Your task to perform on an android device: What is the news today? Image 0: 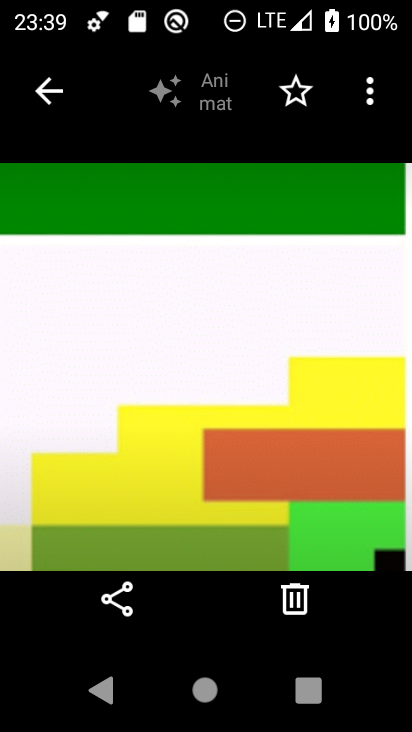
Step 0: press home button
Your task to perform on an android device: What is the news today? Image 1: 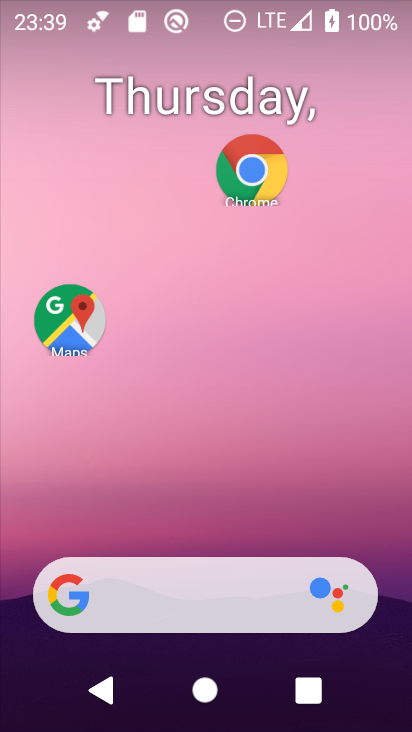
Step 1: drag from (191, 497) to (191, 135)
Your task to perform on an android device: What is the news today? Image 2: 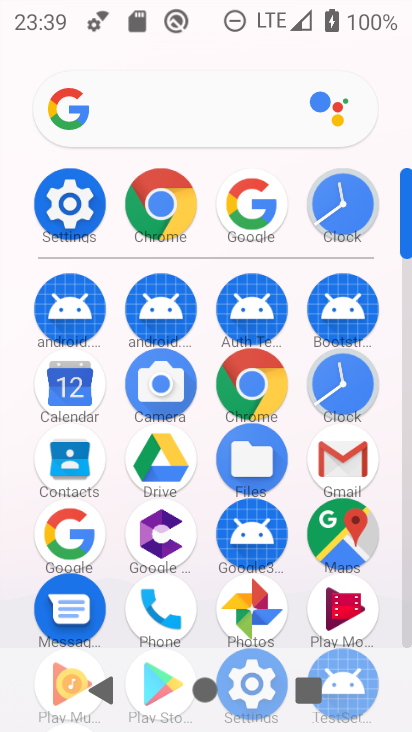
Step 2: click (159, 84)
Your task to perform on an android device: What is the news today? Image 3: 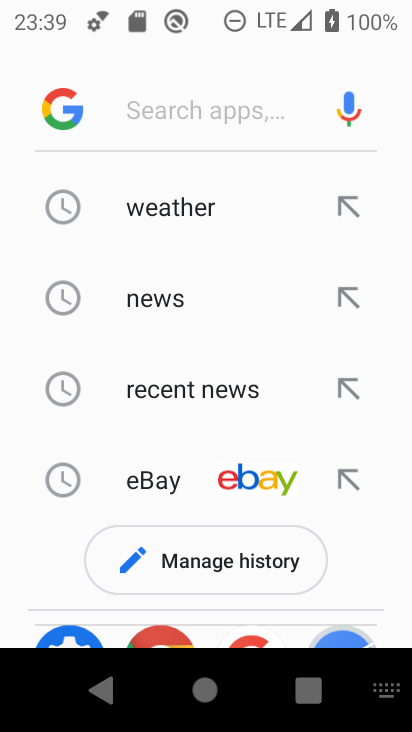
Step 3: drag from (217, 304) to (218, 200)
Your task to perform on an android device: What is the news today? Image 4: 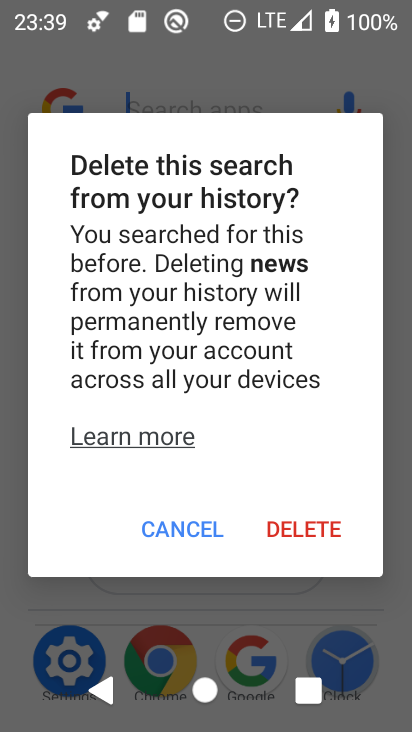
Step 4: click (52, 525)
Your task to perform on an android device: What is the news today? Image 5: 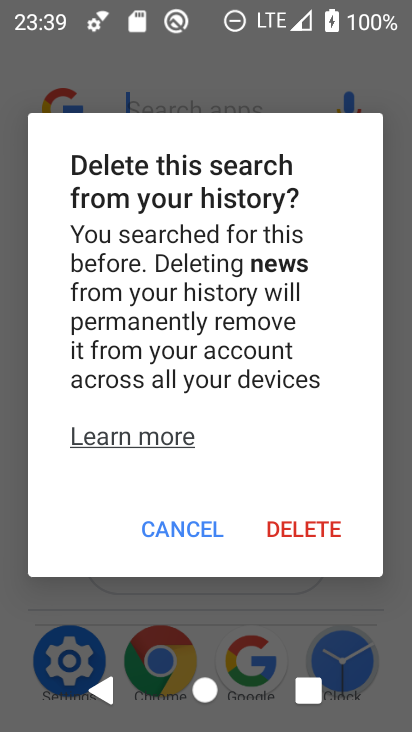
Step 5: click (68, 546)
Your task to perform on an android device: What is the news today? Image 6: 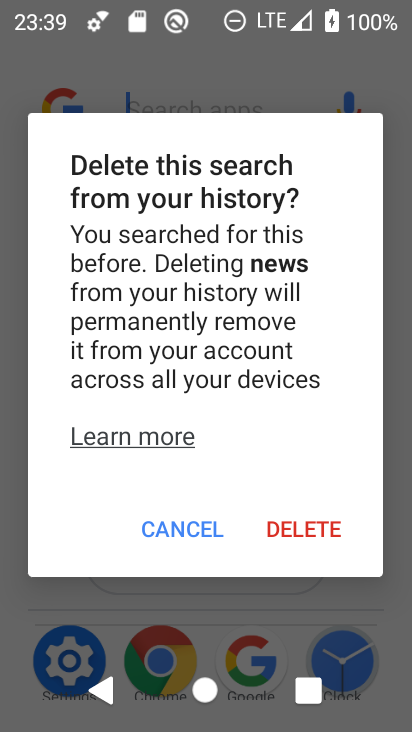
Step 6: click (199, 525)
Your task to perform on an android device: What is the news today? Image 7: 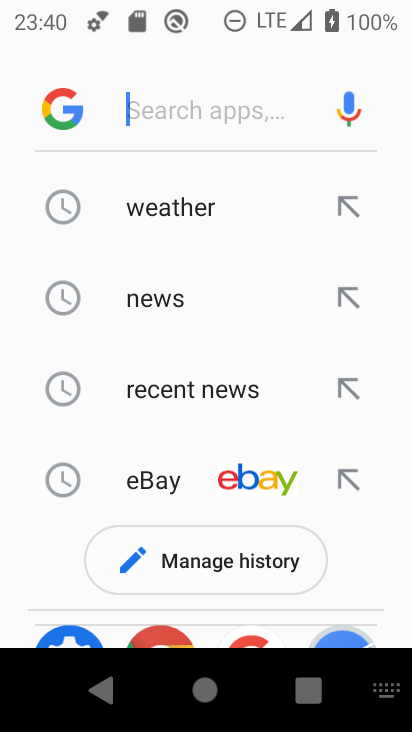
Step 7: type "news today"
Your task to perform on an android device: What is the news today? Image 8: 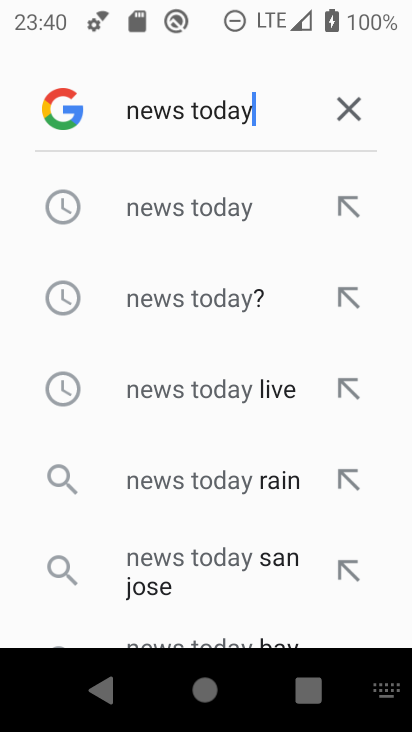
Step 8: click (160, 221)
Your task to perform on an android device: What is the news today? Image 9: 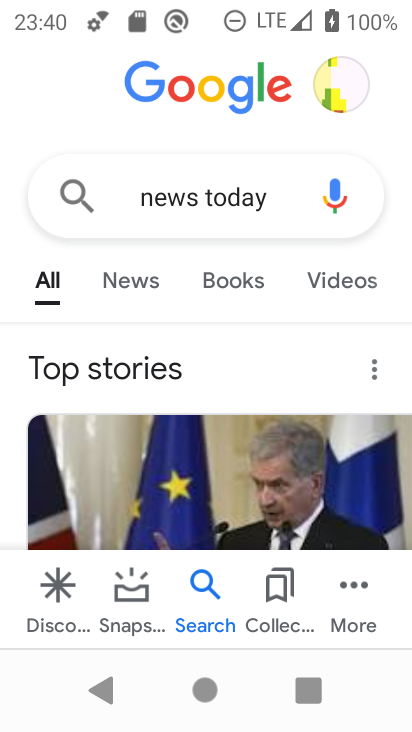
Step 9: task complete